Your task to perform on an android device: toggle airplane mode Image 0: 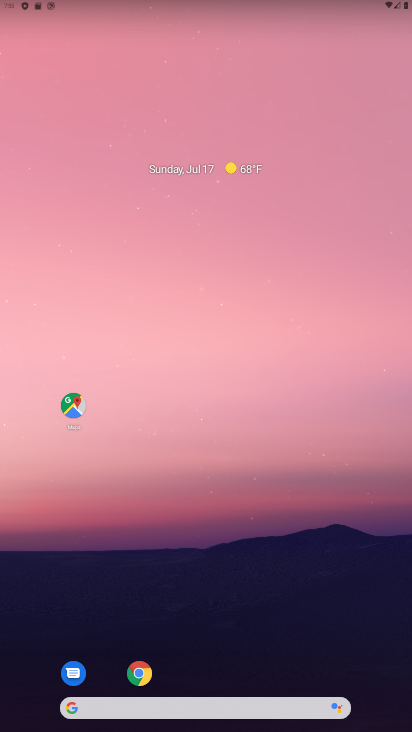
Step 0: drag from (288, 686) to (179, 46)
Your task to perform on an android device: toggle airplane mode Image 1: 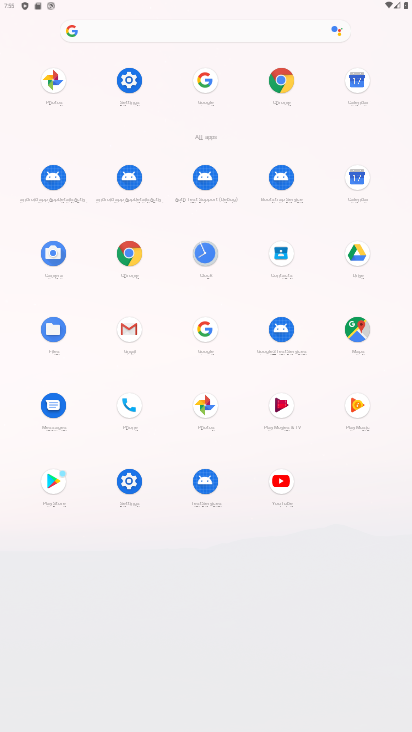
Step 1: click (124, 85)
Your task to perform on an android device: toggle airplane mode Image 2: 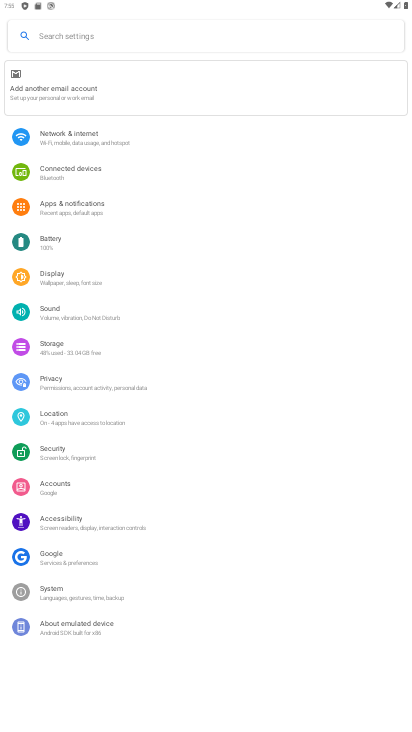
Step 2: click (79, 145)
Your task to perform on an android device: toggle airplane mode Image 3: 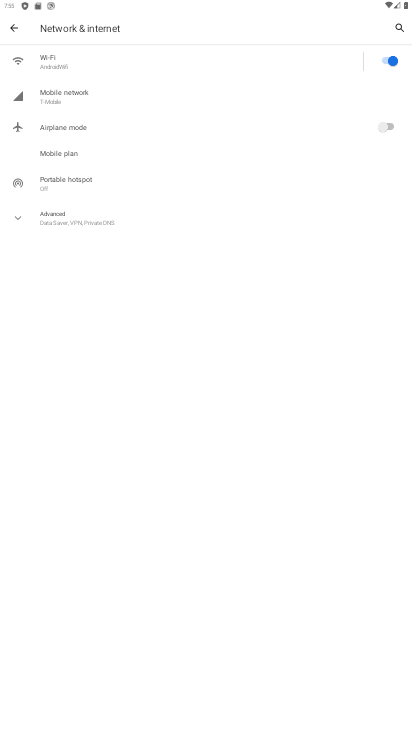
Step 3: click (60, 132)
Your task to perform on an android device: toggle airplane mode Image 4: 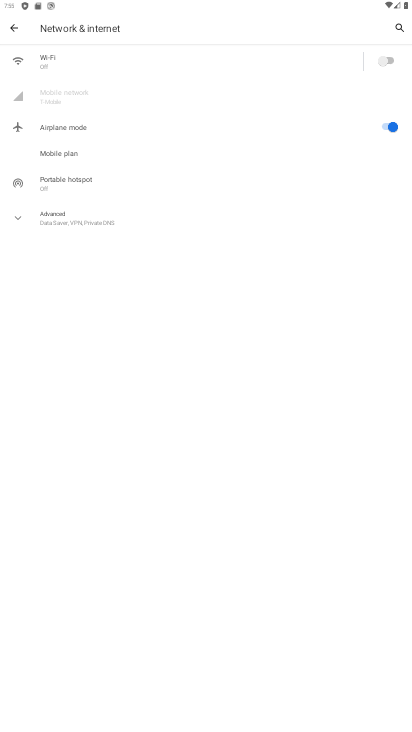
Step 4: task complete